Your task to perform on an android device: Search for pizza restaurants on Maps Image 0: 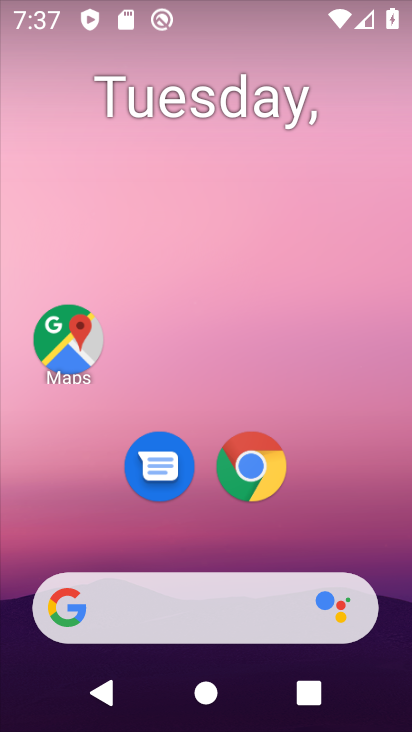
Step 0: click (70, 357)
Your task to perform on an android device: Search for pizza restaurants on Maps Image 1: 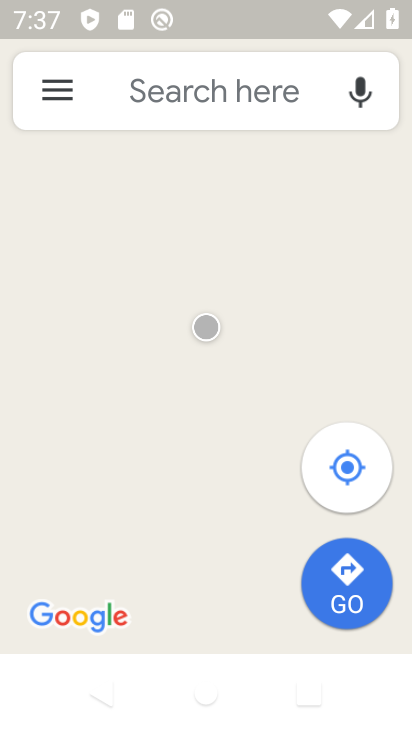
Step 1: click (204, 113)
Your task to perform on an android device: Search for pizza restaurants on Maps Image 2: 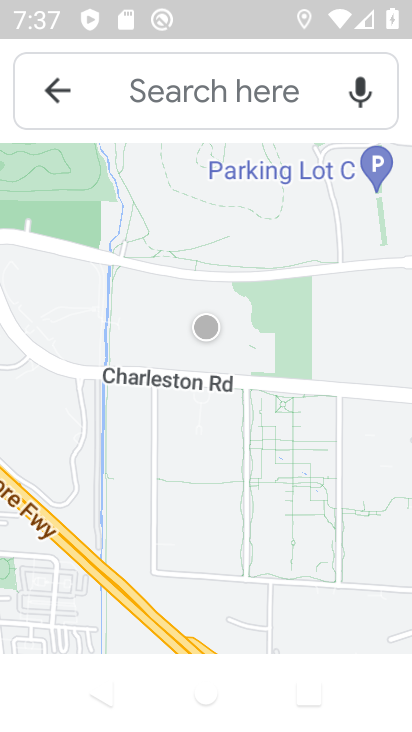
Step 2: click (204, 103)
Your task to perform on an android device: Search for pizza restaurants on Maps Image 3: 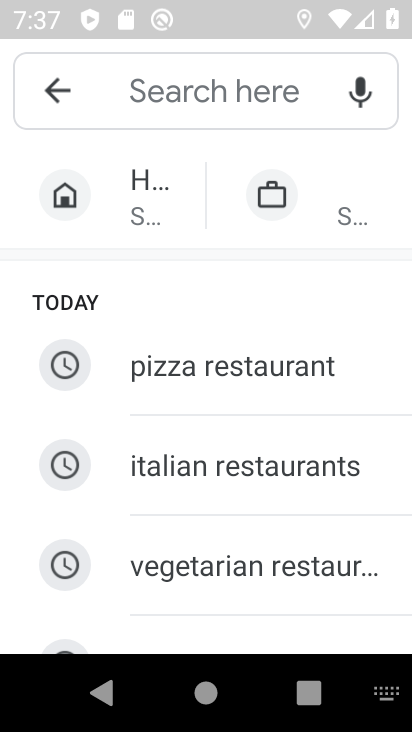
Step 3: type "pizza"
Your task to perform on an android device: Search for pizza restaurants on Maps Image 4: 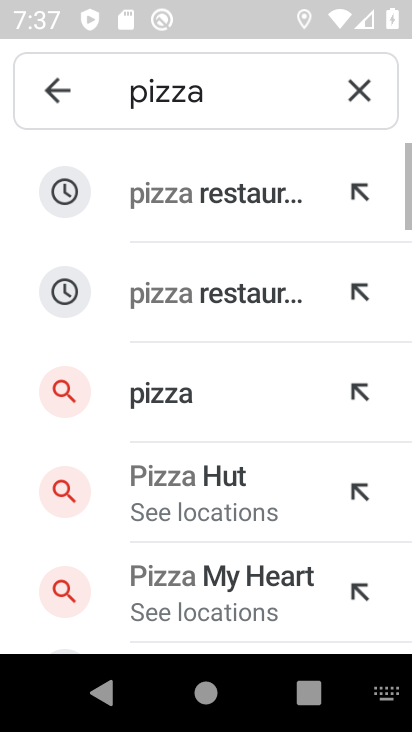
Step 4: click (260, 381)
Your task to perform on an android device: Search for pizza restaurants on Maps Image 5: 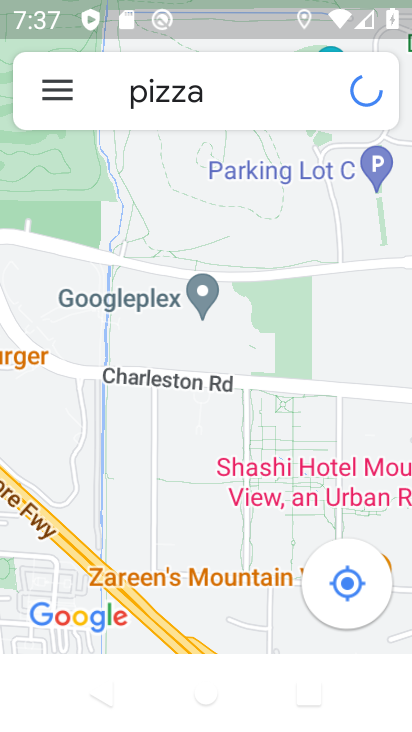
Step 5: click (200, 227)
Your task to perform on an android device: Search for pizza restaurants on Maps Image 6: 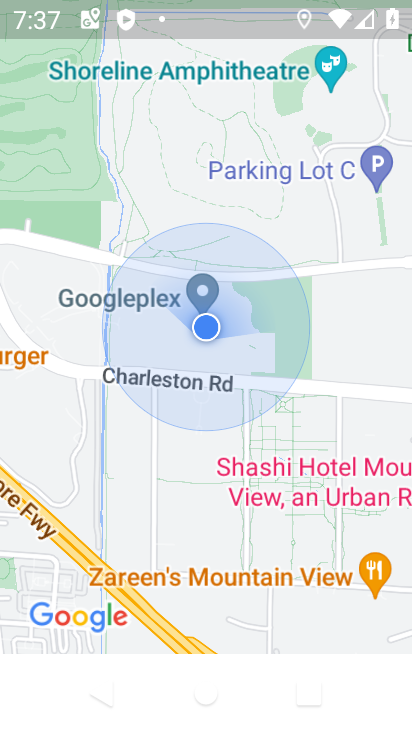
Step 6: task complete